Your task to perform on an android device: toggle data saver in the chrome app Image 0: 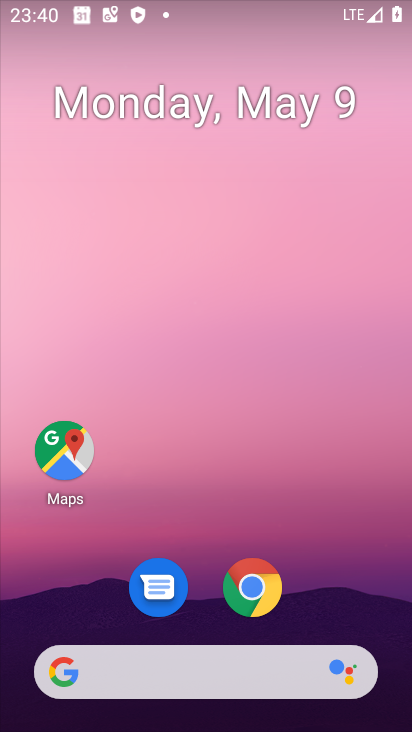
Step 0: click (252, 573)
Your task to perform on an android device: toggle data saver in the chrome app Image 1: 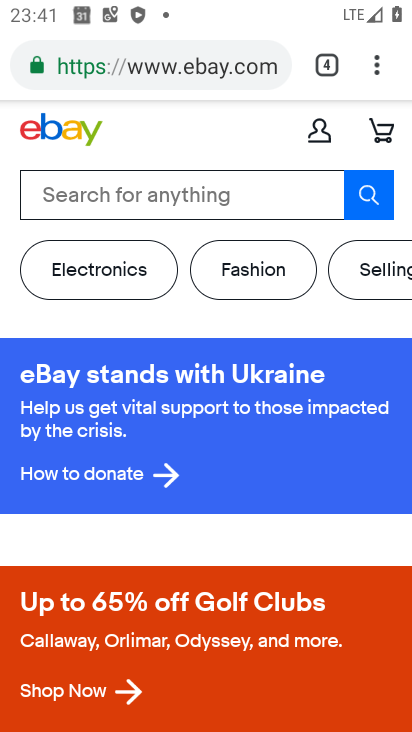
Step 1: click (366, 55)
Your task to perform on an android device: toggle data saver in the chrome app Image 2: 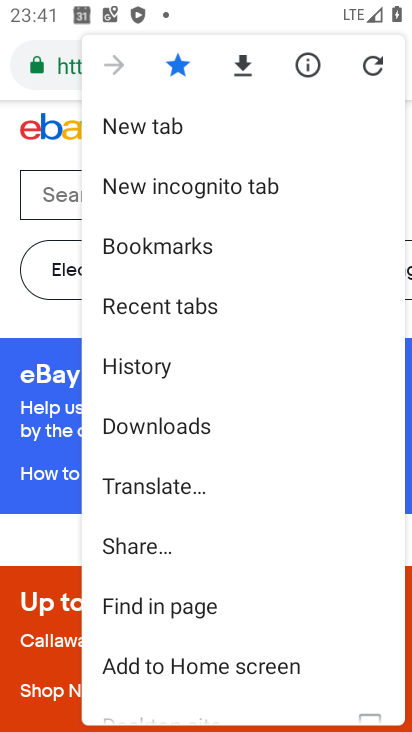
Step 2: drag from (199, 618) to (389, 0)
Your task to perform on an android device: toggle data saver in the chrome app Image 3: 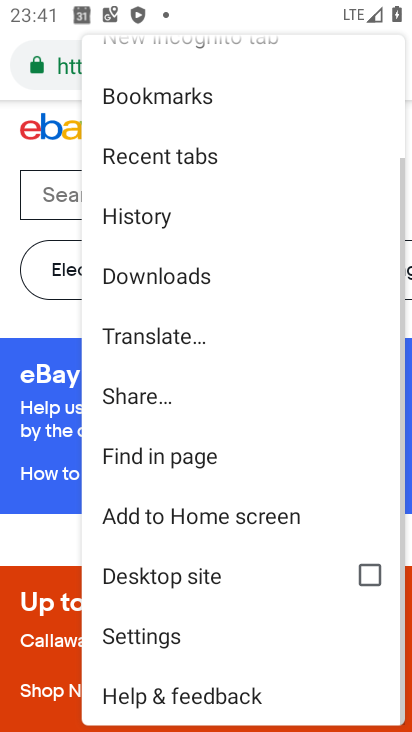
Step 3: click (152, 658)
Your task to perform on an android device: toggle data saver in the chrome app Image 4: 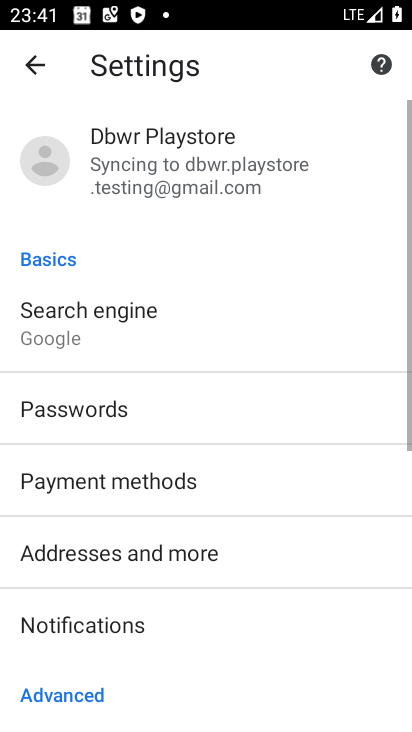
Step 4: drag from (152, 658) to (232, 185)
Your task to perform on an android device: toggle data saver in the chrome app Image 5: 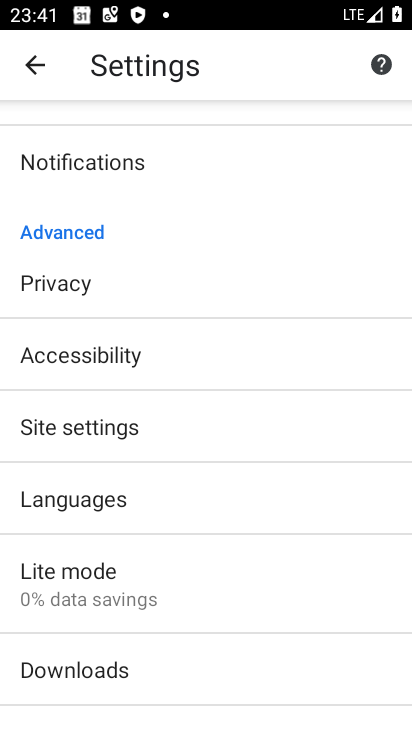
Step 5: click (211, 556)
Your task to perform on an android device: toggle data saver in the chrome app Image 6: 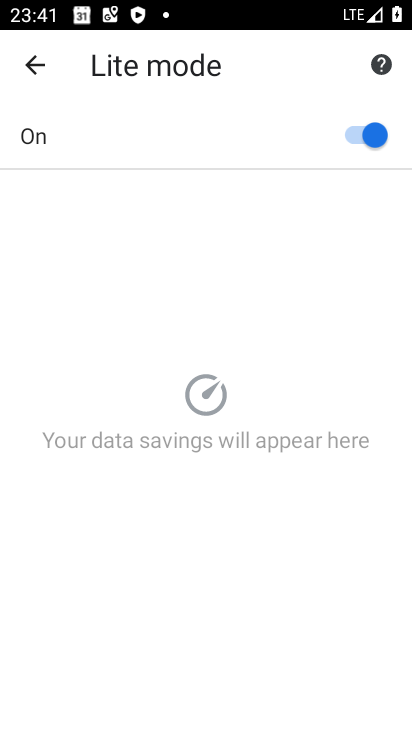
Step 6: click (367, 139)
Your task to perform on an android device: toggle data saver in the chrome app Image 7: 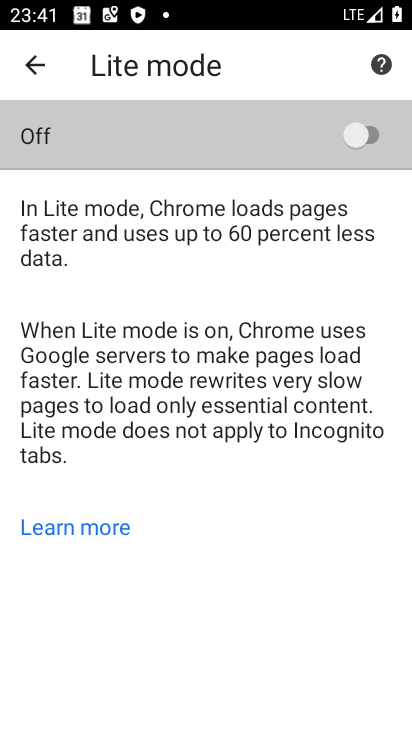
Step 7: click (367, 139)
Your task to perform on an android device: toggle data saver in the chrome app Image 8: 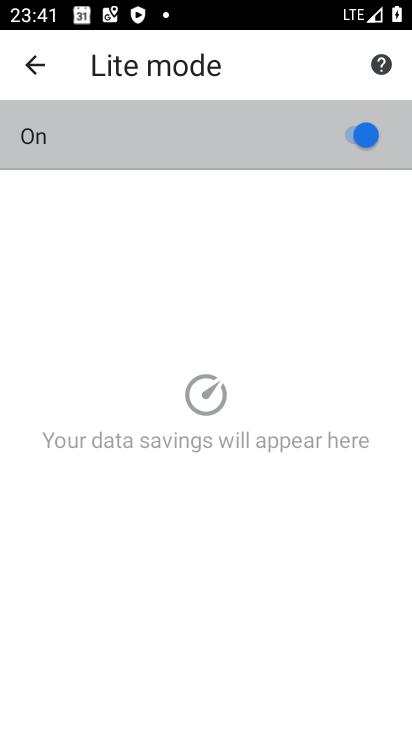
Step 8: click (367, 139)
Your task to perform on an android device: toggle data saver in the chrome app Image 9: 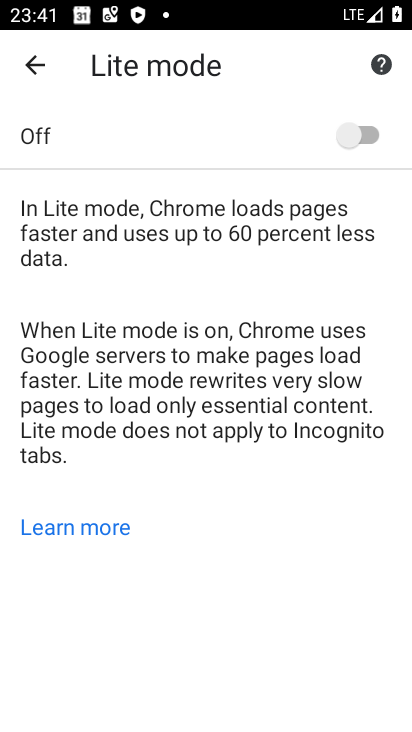
Step 9: task complete